Your task to perform on an android device: Go to CNN.com Image 0: 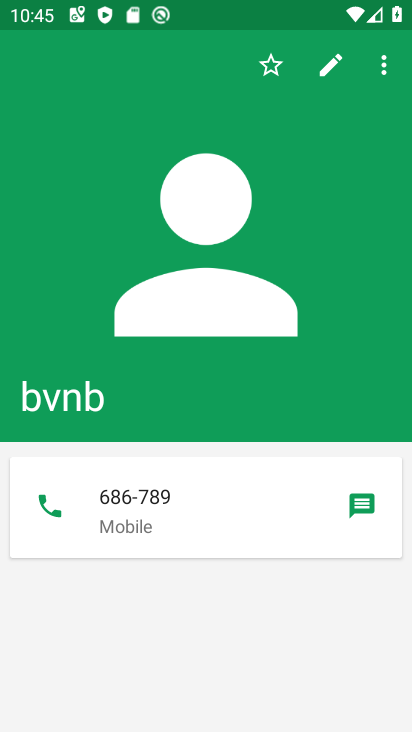
Step 0: press home button
Your task to perform on an android device: Go to CNN.com Image 1: 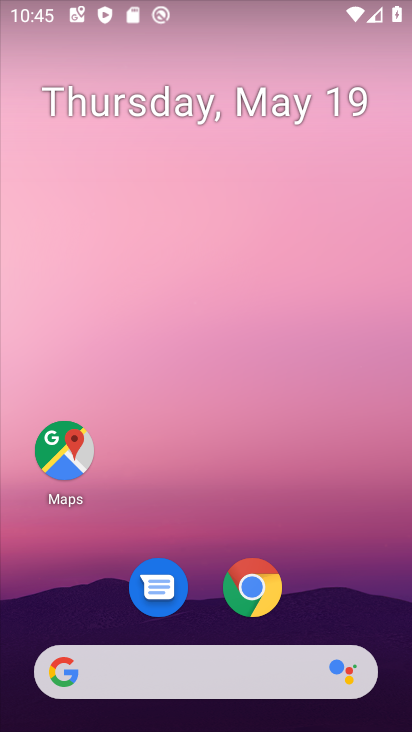
Step 1: click (253, 601)
Your task to perform on an android device: Go to CNN.com Image 2: 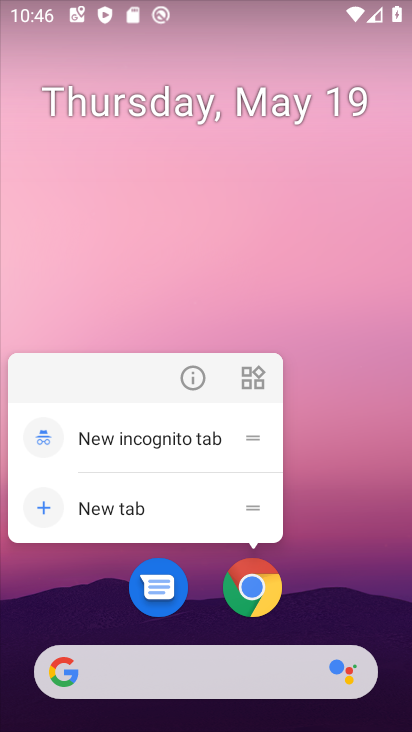
Step 2: click (238, 577)
Your task to perform on an android device: Go to CNN.com Image 3: 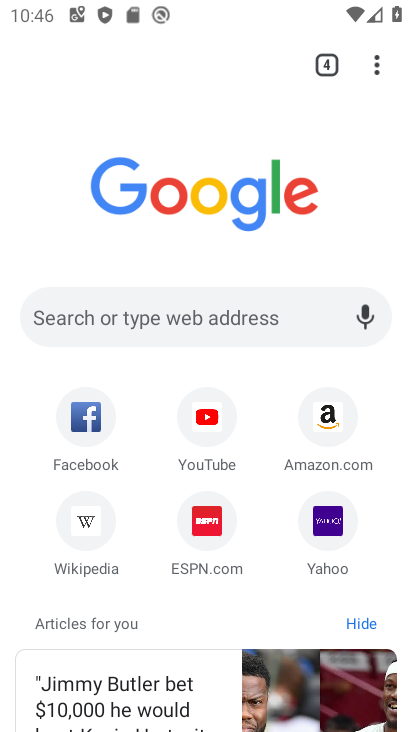
Step 3: click (173, 320)
Your task to perform on an android device: Go to CNN.com Image 4: 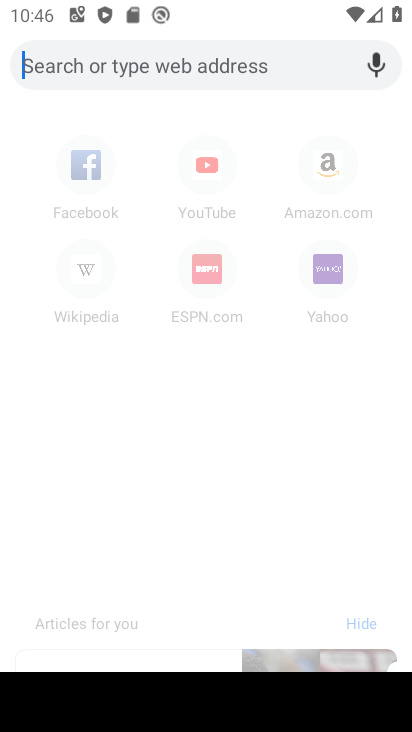
Step 4: type "cnn.com"
Your task to perform on an android device: Go to CNN.com Image 5: 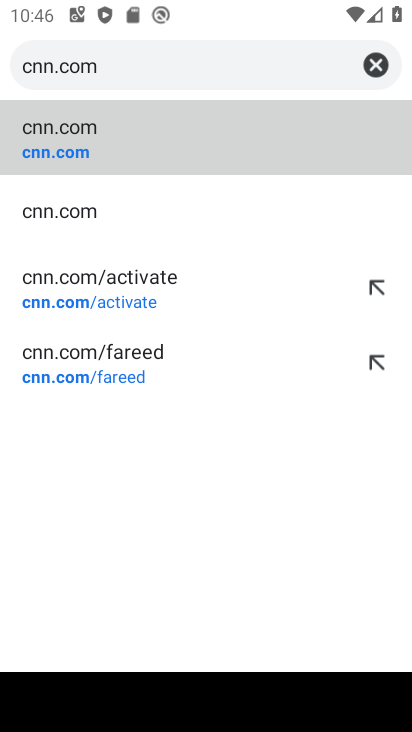
Step 5: click (113, 145)
Your task to perform on an android device: Go to CNN.com Image 6: 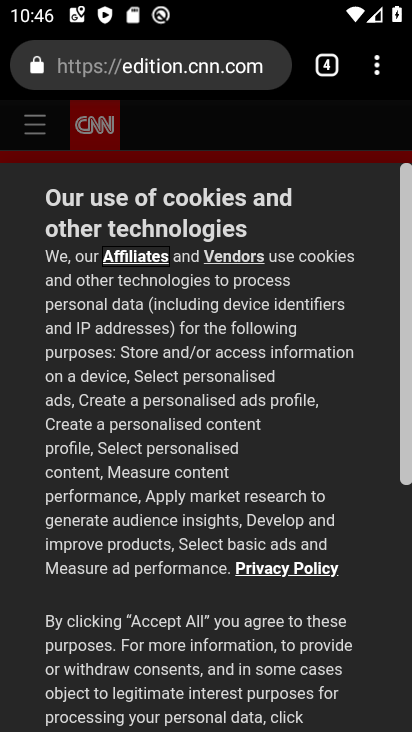
Step 6: task complete